Your task to perform on an android device: show emergency info Image 0: 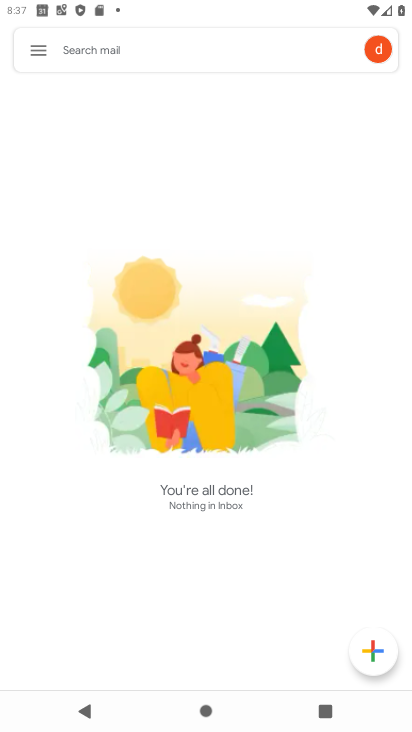
Step 0: press home button
Your task to perform on an android device: show emergency info Image 1: 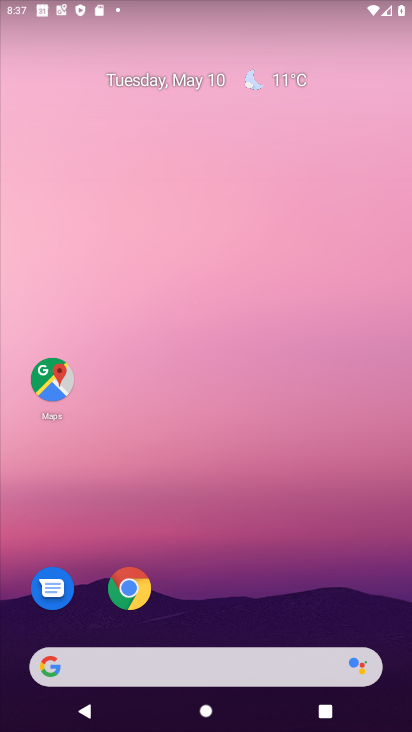
Step 1: drag from (186, 610) to (217, 220)
Your task to perform on an android device: show emergency info Image 2: 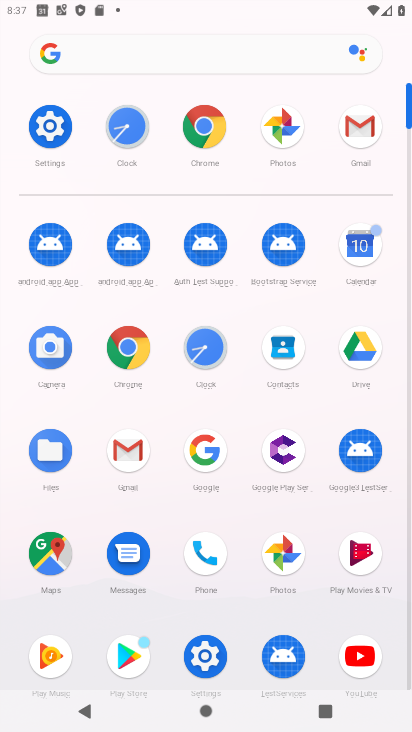
Step 2: click (50, 140)
Your task to perform on an android device: show emergency info Image 3: 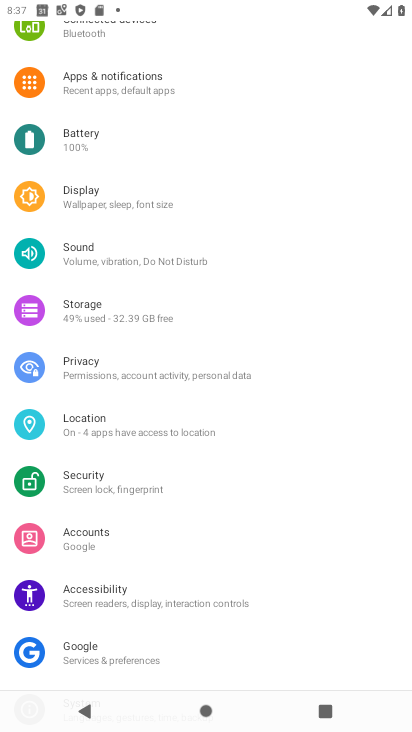
Step 3: drag from (67, 667) to (117, 231)
Your task to perform on an android device: show emergency info Image 4: 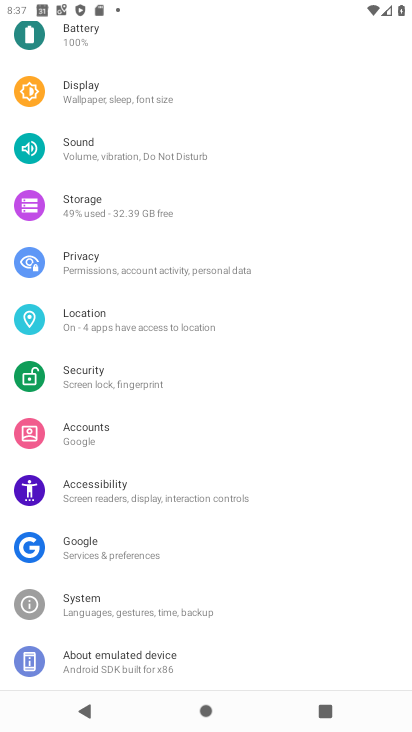
Step 4: click (167, 668)
Your task to perform on an android device: show emergency info Image 5: 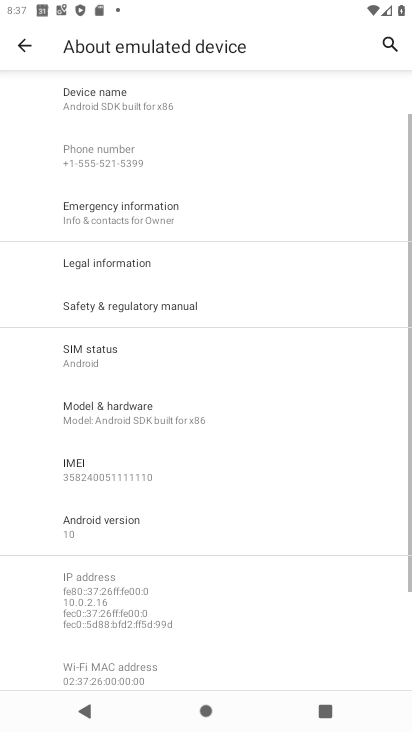
Step 5: drag from (167, 668) to (189, 336)
Your task to perform on an android device: show emergency info Image 6: 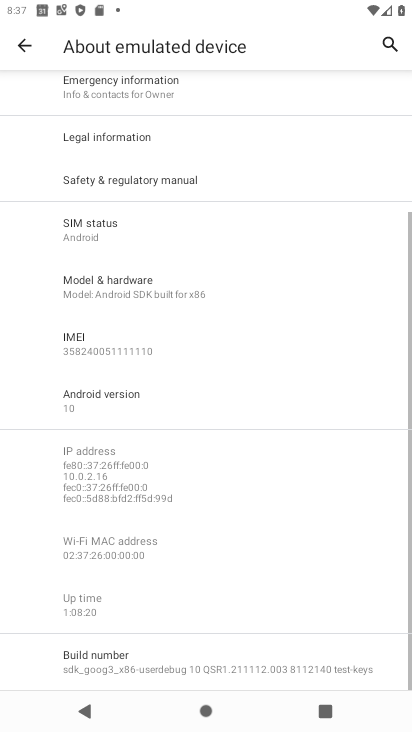
Step 6: drag from (180, 156) to (177, 540)
Your task to perform on an android device: show emergency info Image 7: 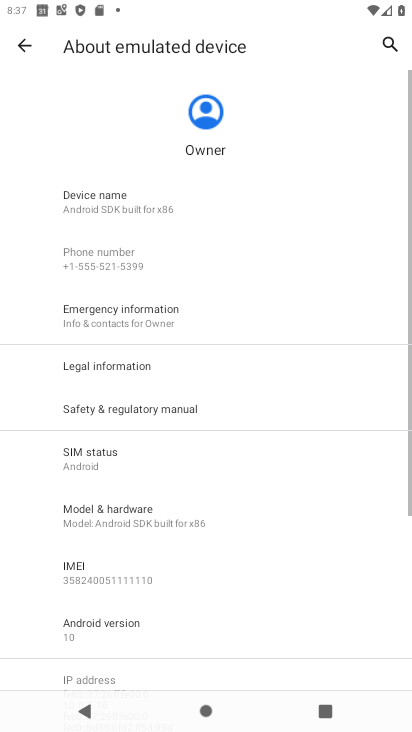
Step 7: click (188, 322)
Your task to perform on an android device: show emergency info Image 8: 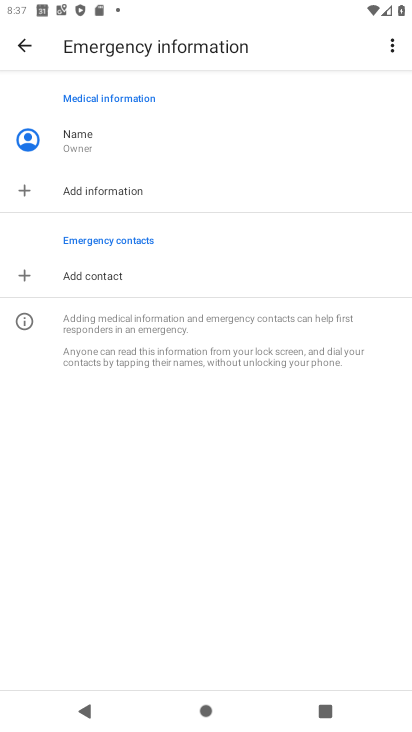
Step 8: task complete